Your task to perform on an android device: Set an alarm for 6pm Image 0: 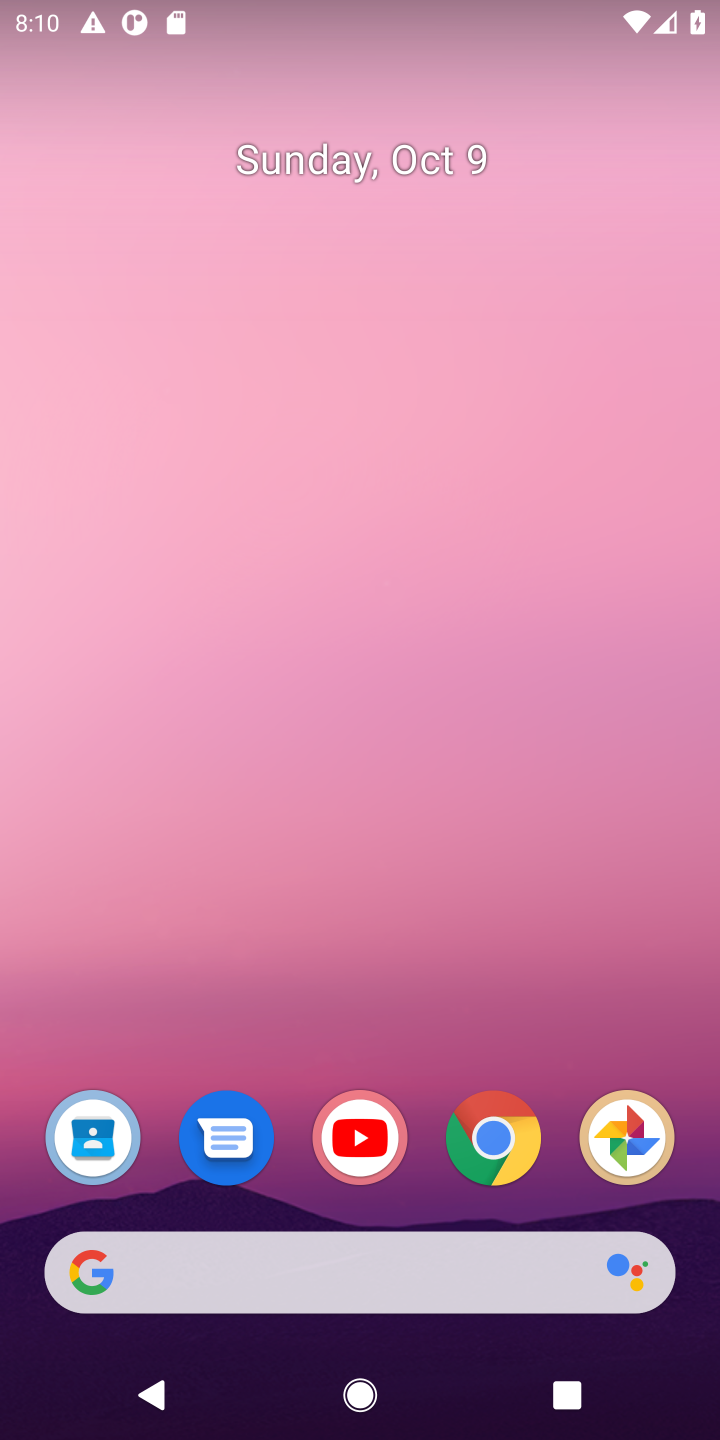
Step 0: drag from (401, 1095) to (406, 530)
Your task to perform on an android device: Set an alarm for 6pm Image 1: 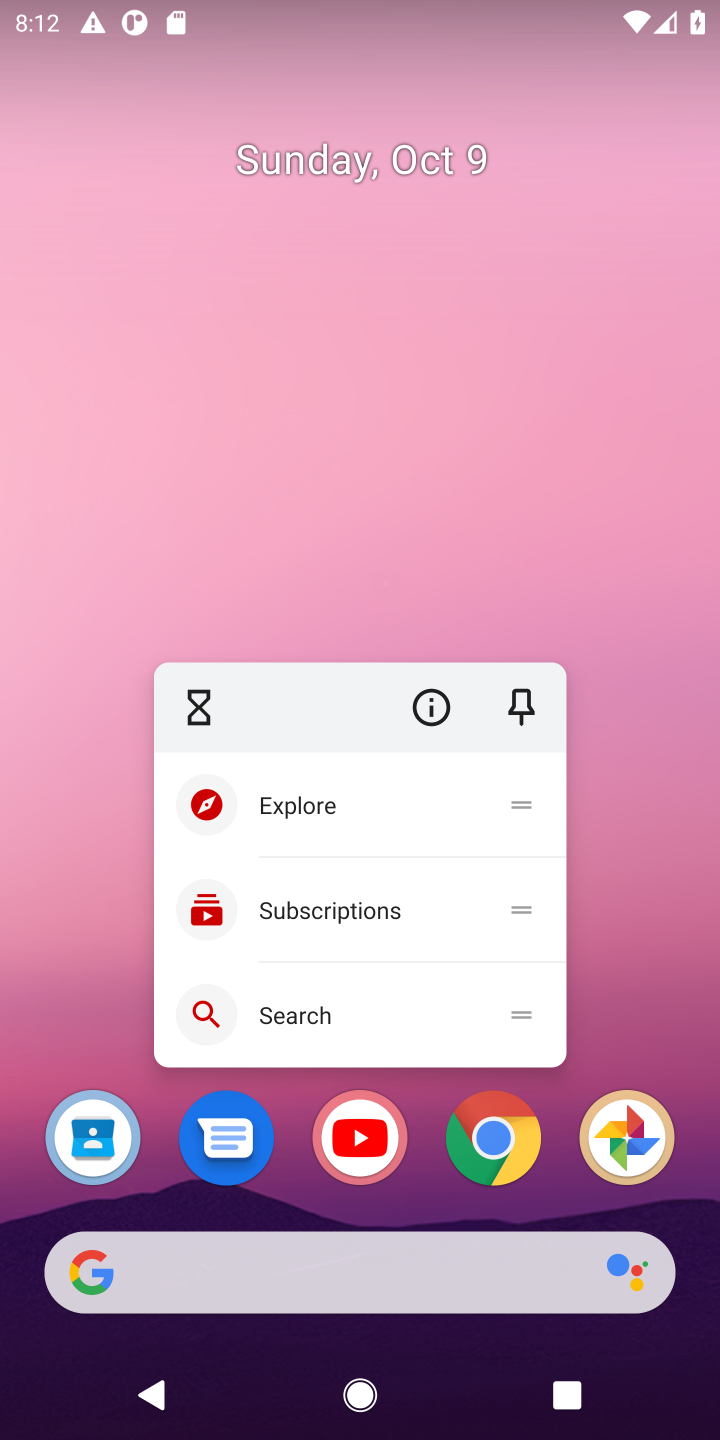
Step 1: click (402, 488)
Your task to perform on an android device: Set an alarm for 6pm Image 2: 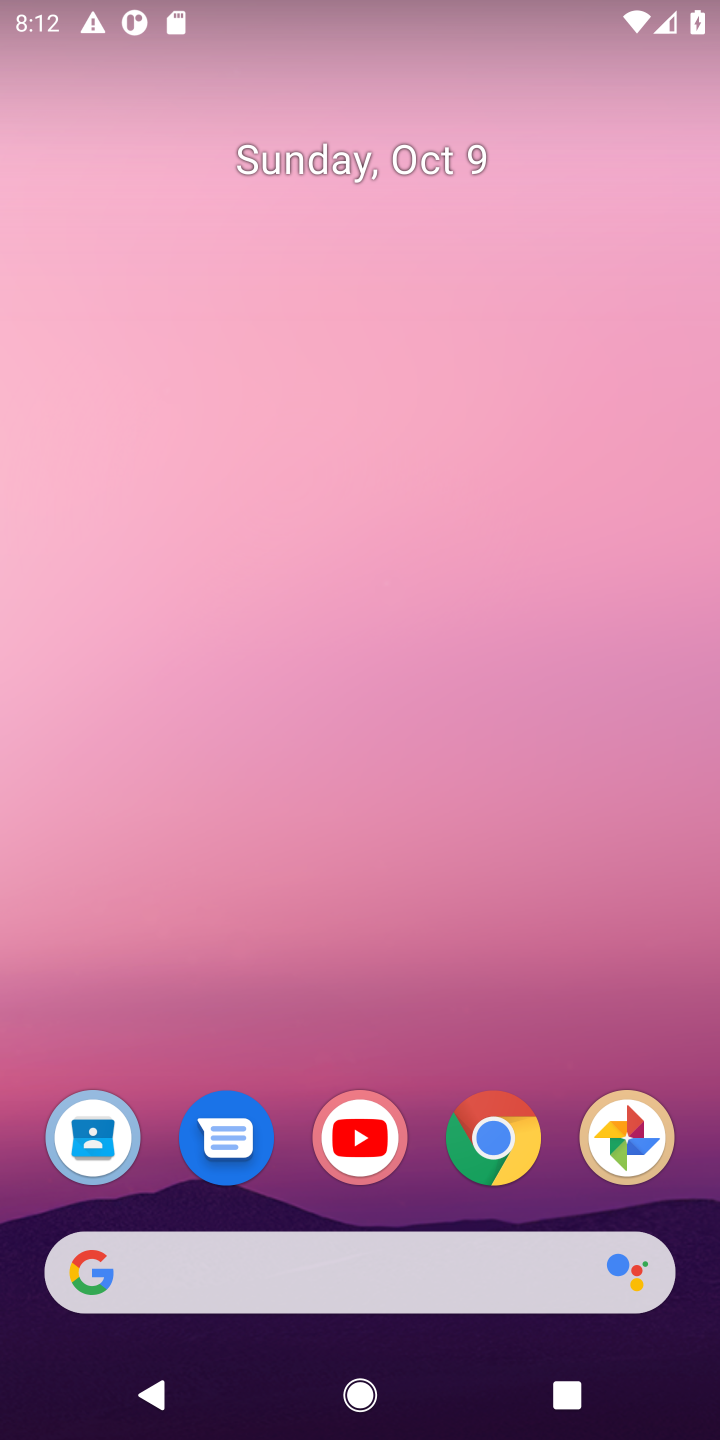
Step 2: drag from (246, 904) to (256, 298)
Your task to perform on an android device: Set an alarm for 6pm Image 3: 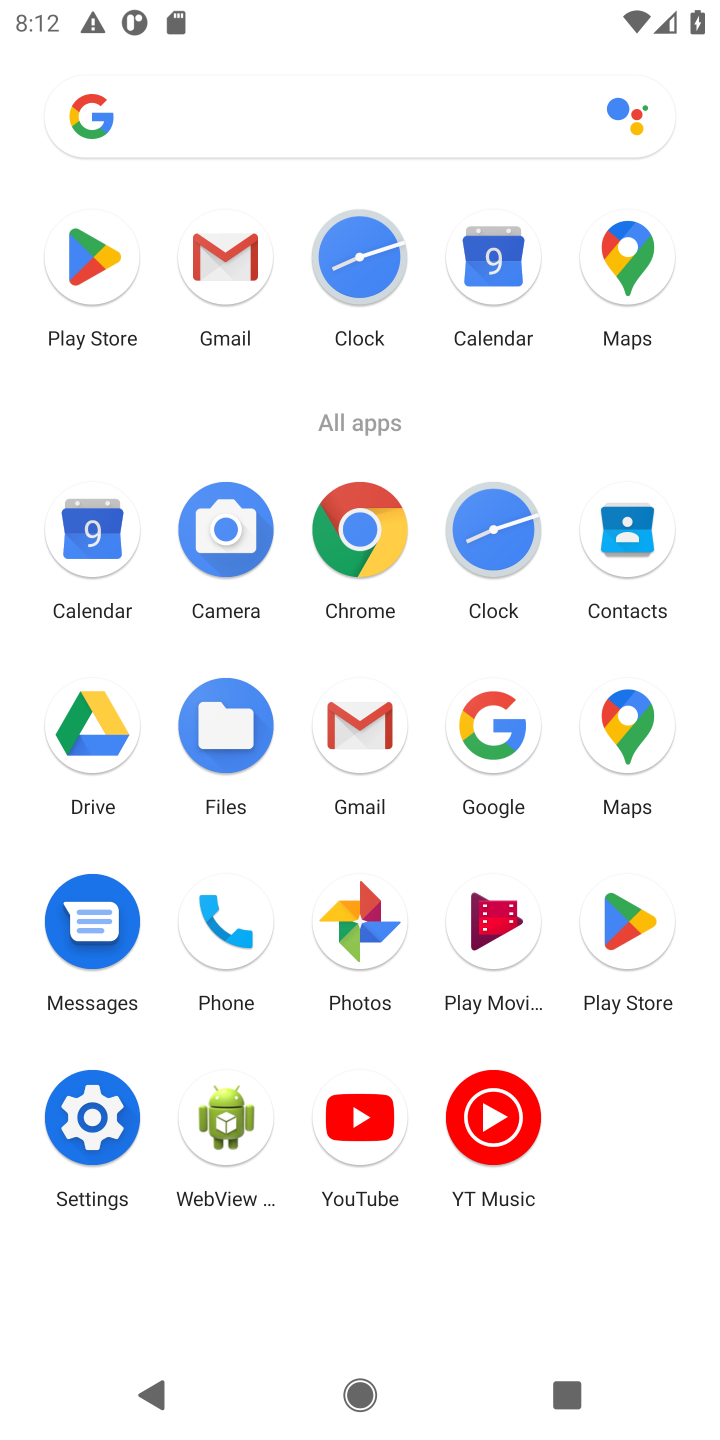
Step 3: click (481, 529)
Your task to perform on an android device: Set an alarm for 6pm Image 4: 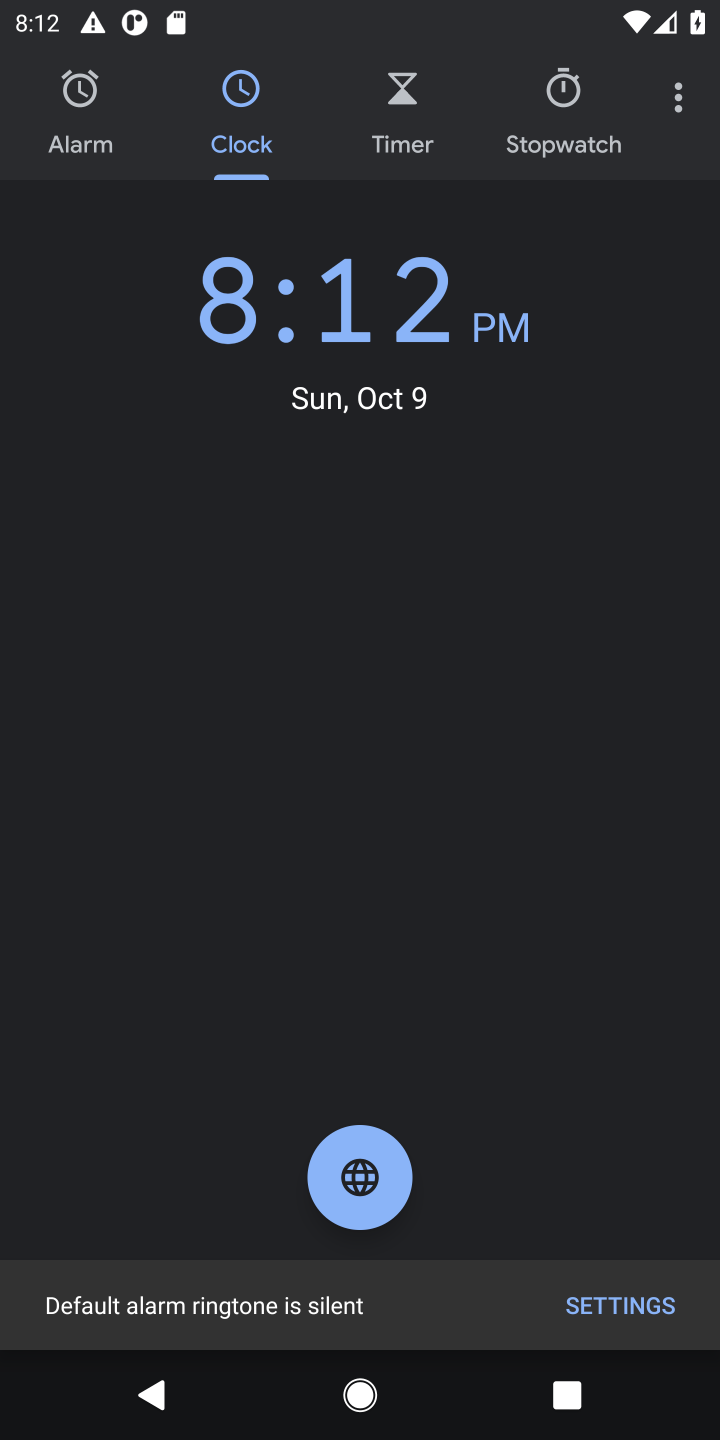
Step 4: click (93, 95)
Your task to perform on an android device: Set an alarm for 6pm Image 5: 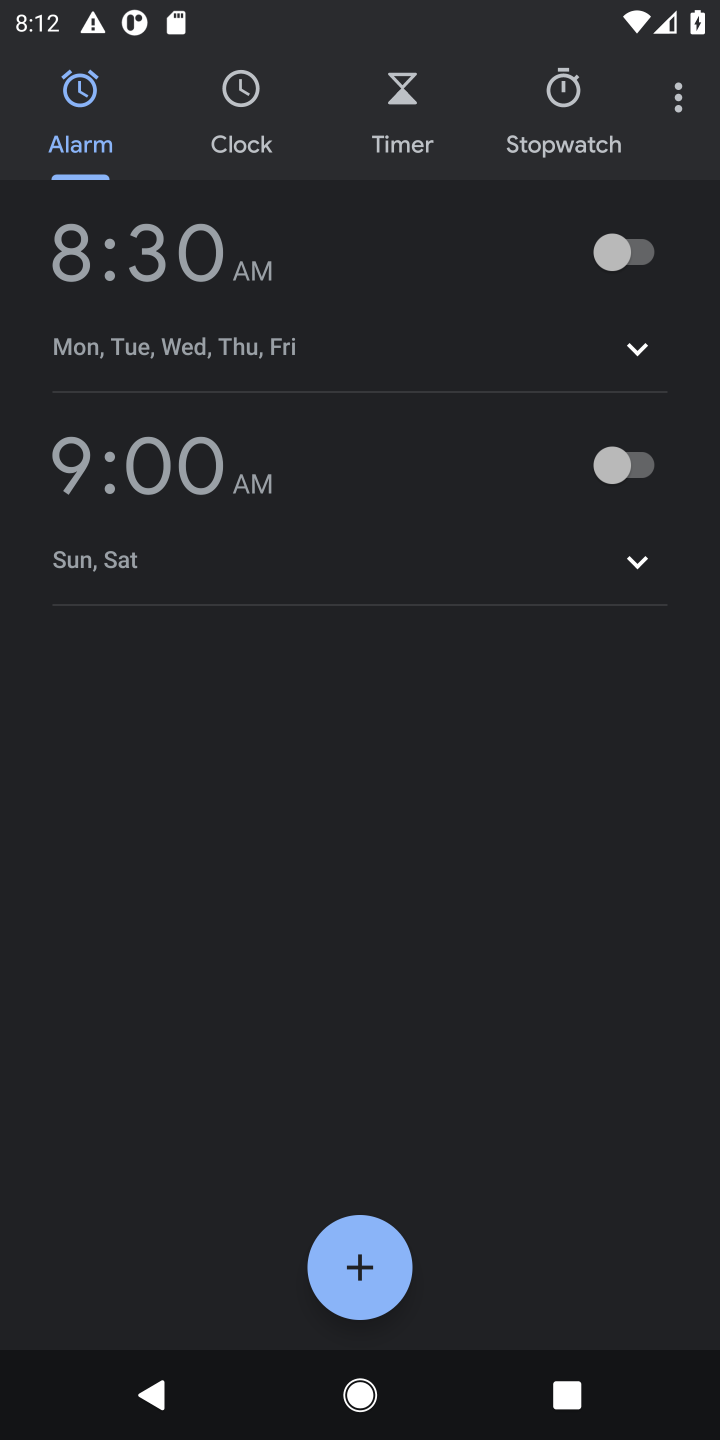
Step 5: click (353, 1235)
Your task to perform on an android device: Set an alarm for 6pm Image 6: 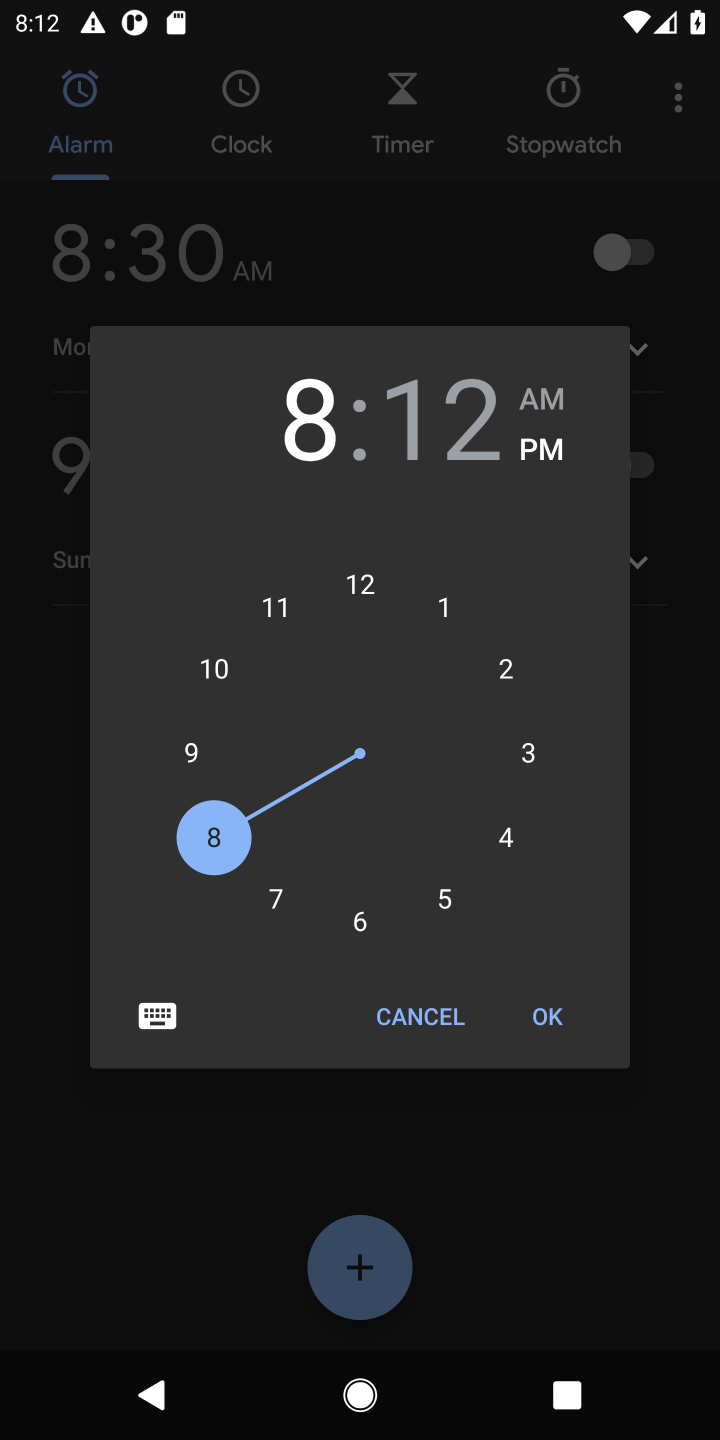
Step 6: click (353, 932)
Your task to perform on an android device: Set an alarm for 6pm Image 7: 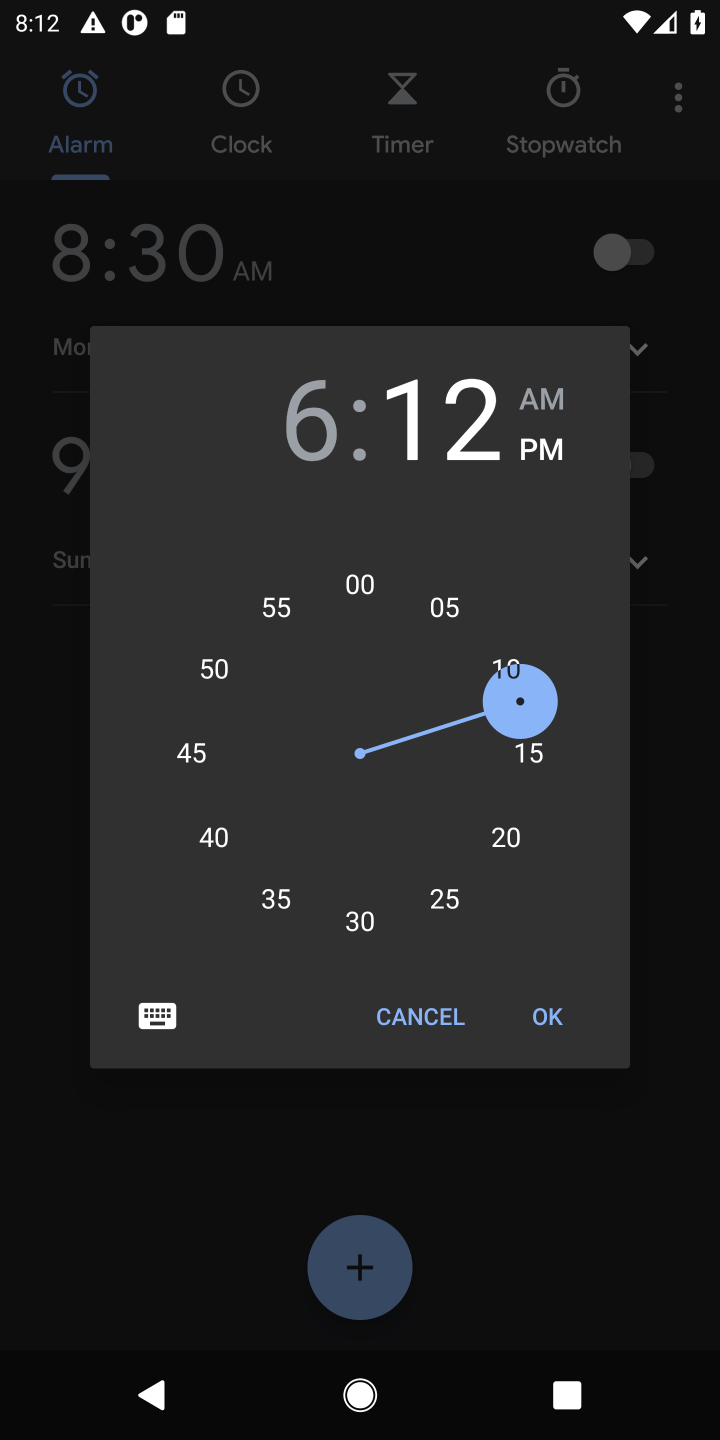
Step 7: click (381, 579)
Your task to perform on an android device: Set an alarm for 6pm Image 8: 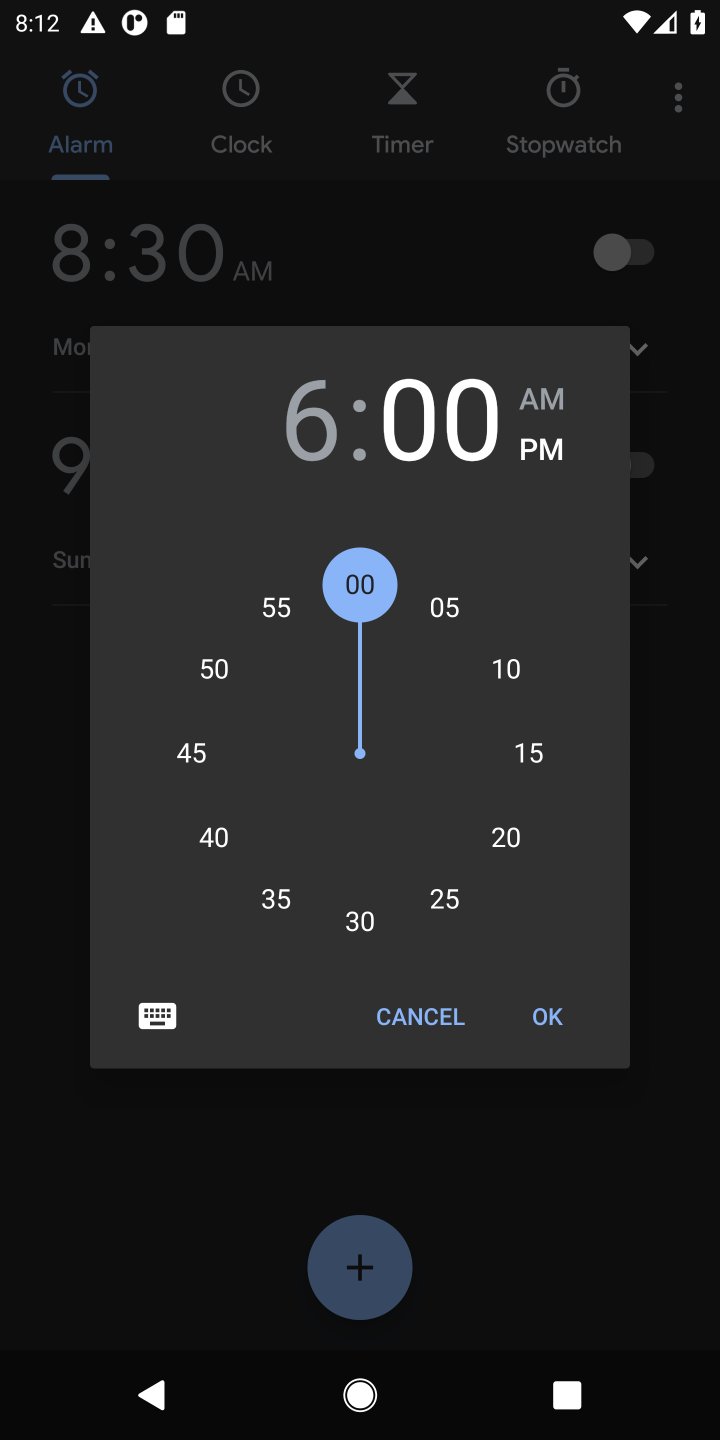
Step 8: click (570, 1035)
Your task to perform on an android device: Set an alarm for 6pm Image 9: 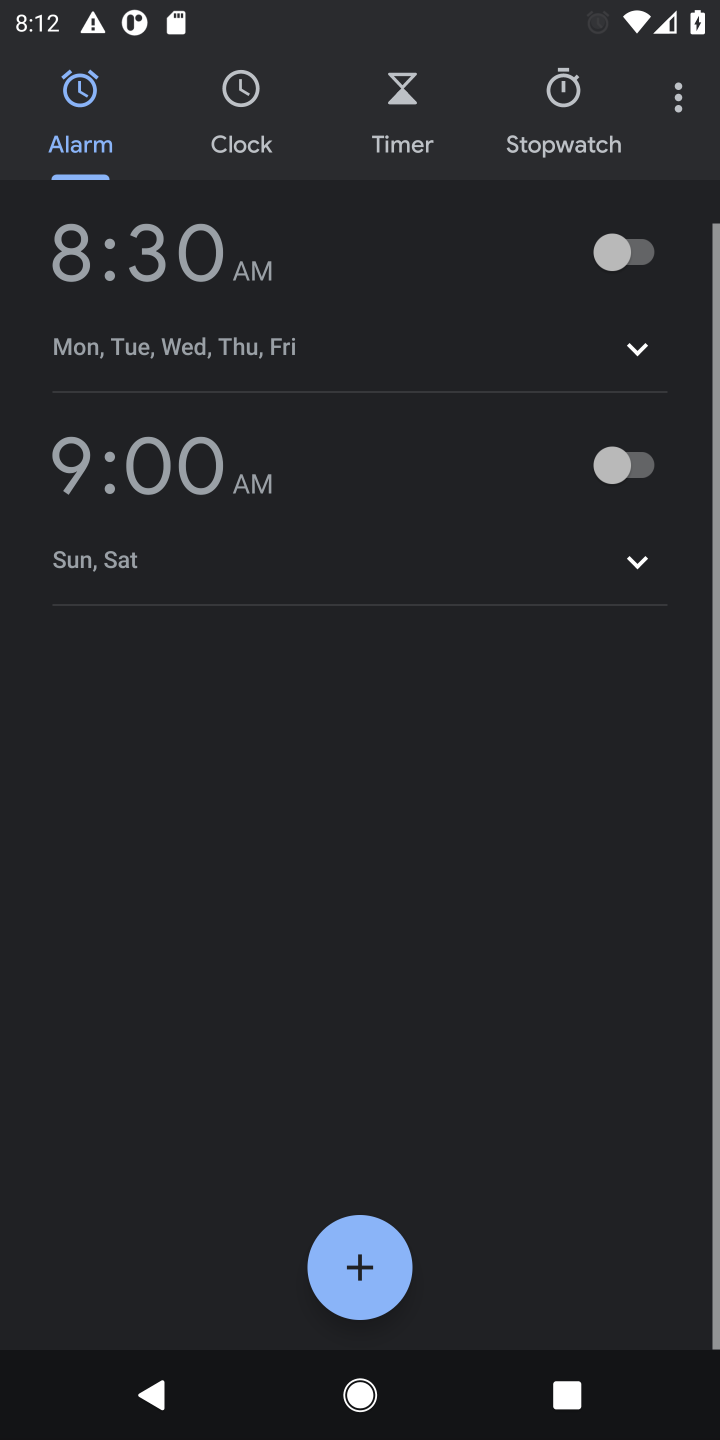
Step 9: click (556, 1021)
Your task to perform on an android device: Set an alarm for 6pm Image 10: 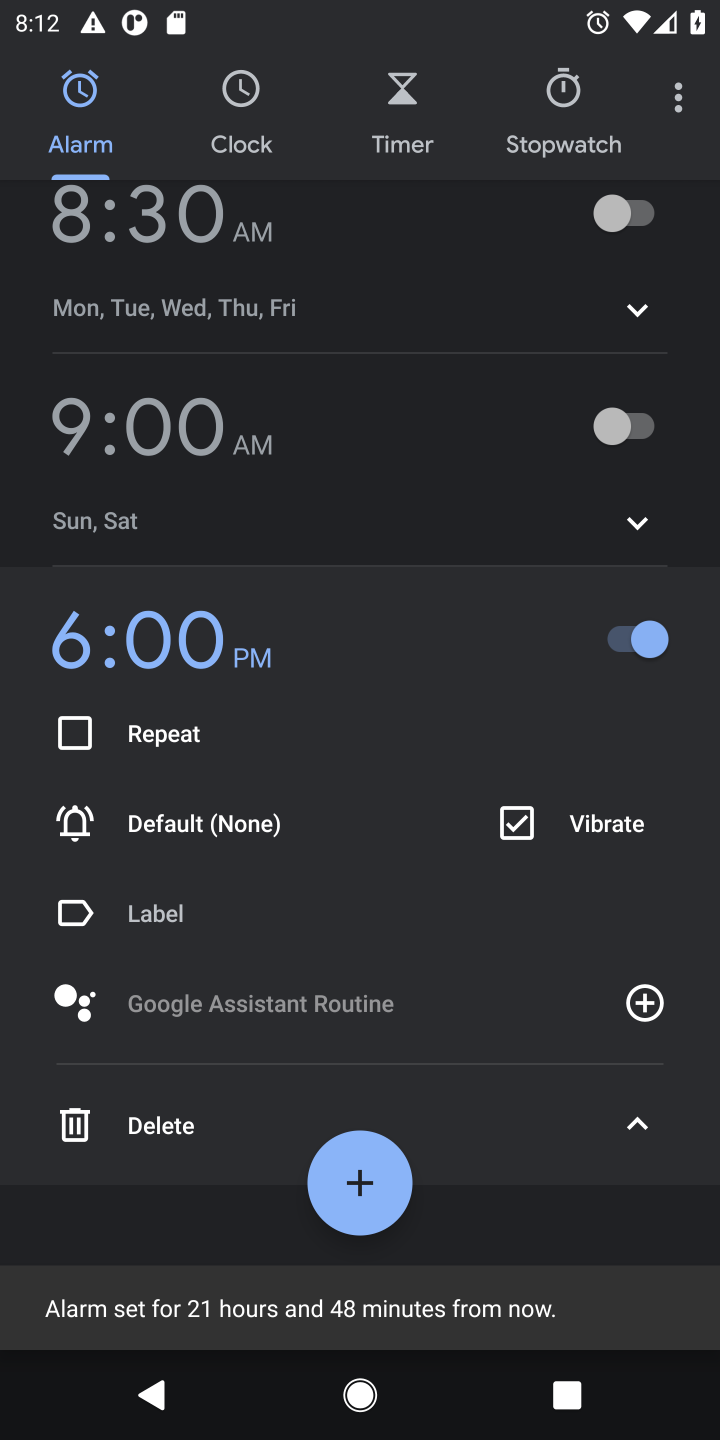
Step 10: click (641, 1153)
Your task to perform on an android device: Set an alarm for 6pm Image 11: 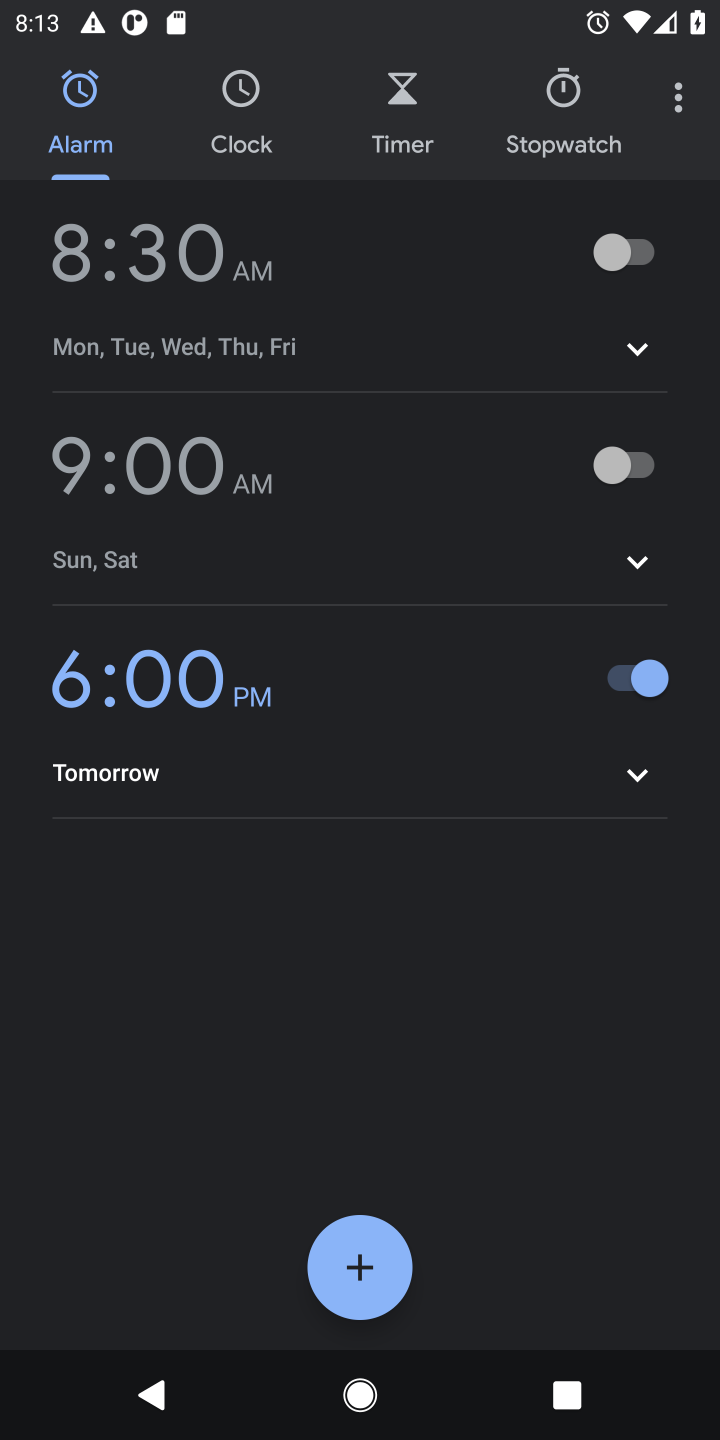
Step 11: task complete